Your task to perform on an android device: Do I have any events tomorrow? Image 0: 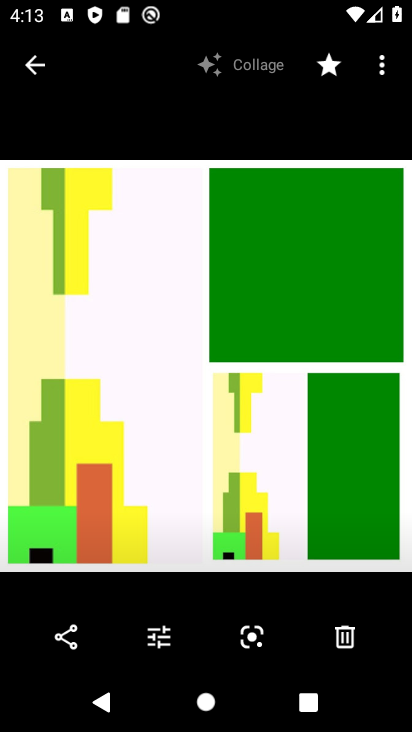
Step 0: press home button
Your task to perform on an android device: Do I have any events tomorrow? Image 1: 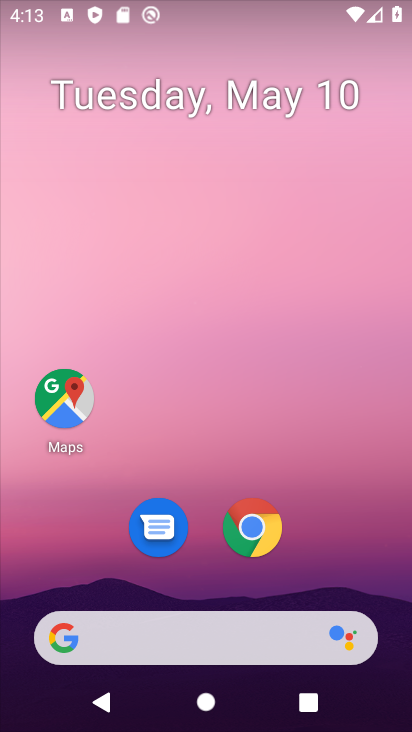
Step 1: drag from (191, 552) to (170, 41)
Your task to perform on an android device: Do I have any events tomorrow? Image 2: 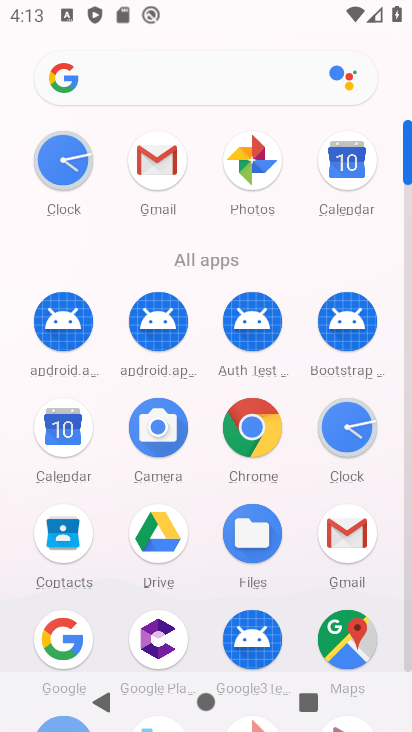
Step 2: click (344, 157)
Your task to perform on an android device: Do I have any events tomorrow? Image 3: 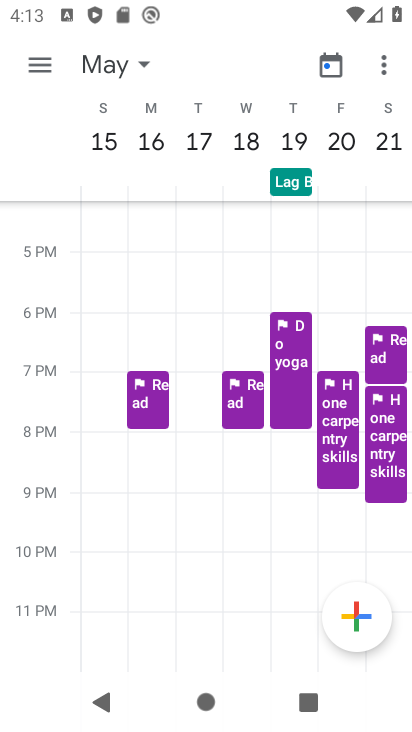
Step 3: drag from (101, 284) to (397, 249)
Your task to perform on an android device: Do I have any events tomorrow? Image 4: 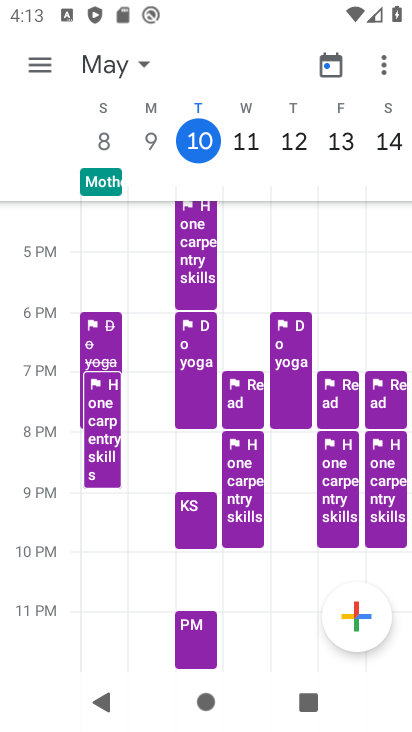
Step 4: click (196, 130)
Your task to perform on an android device: Do I have any events tomorrow? Image 5: 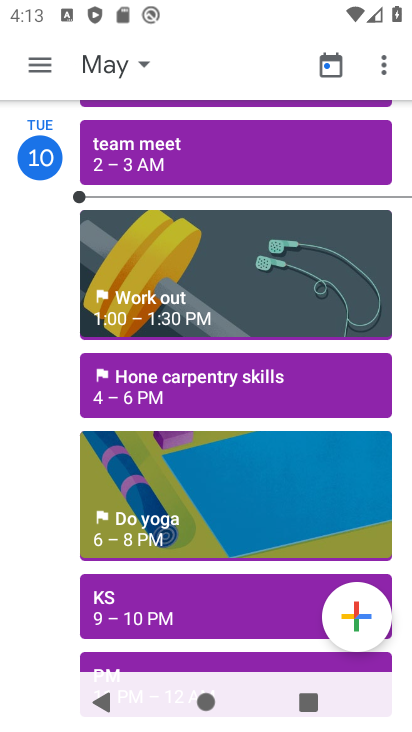
Step 5: task complete